Your task to perform on an android device: Search for sushi restaurants on Maps Image 0: 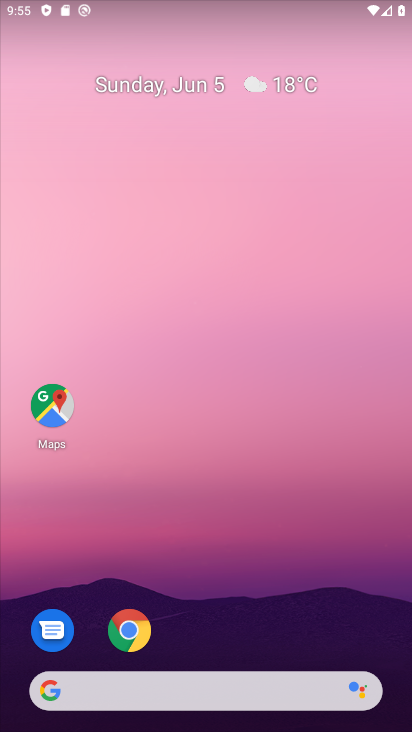
Step 0: click (53, 409)
Your task to perform on an android device: Search for sushi restaurants on Maps Image 1: 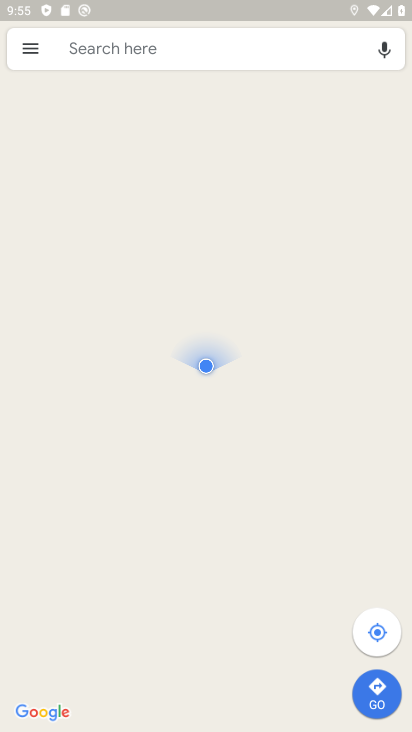
Step 1: click (246, 47)
Your task to perform on an android device: Search for sushi restaurants on Maps Image 2: 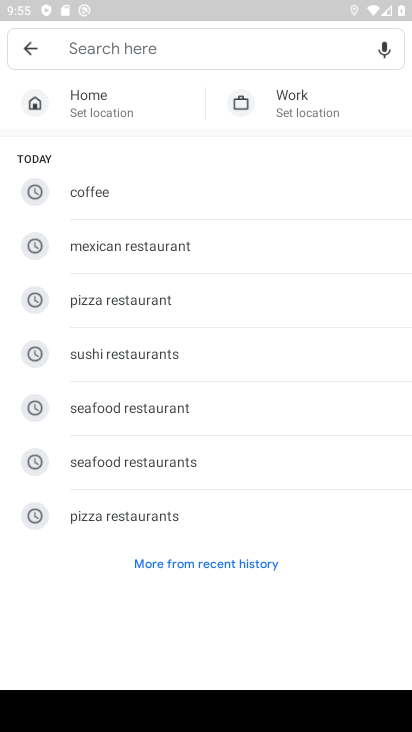
Step 2: click (190, 360)
Your task to perform on an android device: Search for sushi restaurants on Maps Image 3: 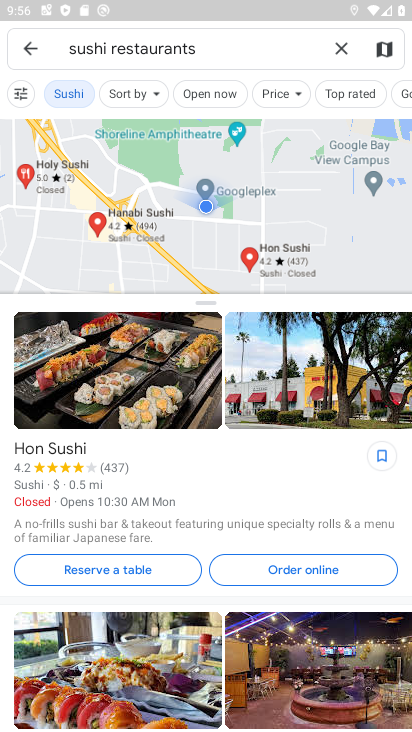
Step 3: task complete